Your task to perform on an android device: toggle pop-ups in chrome Image 0: 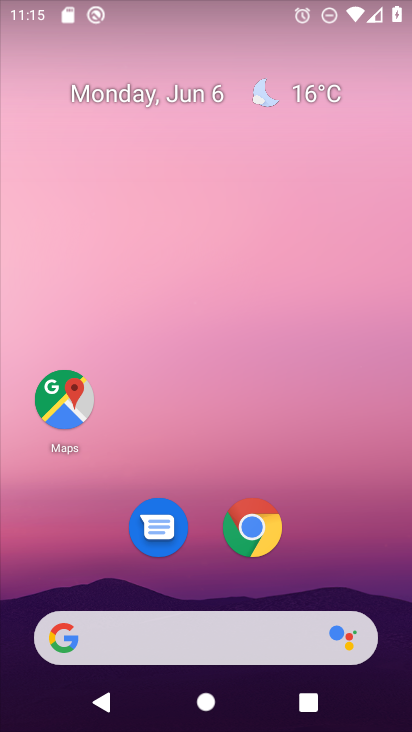
Step 0: drag from (369, 529) to (396, 142)
Your task to perform on an android device: toggle pop-ups in chrome Image 1: 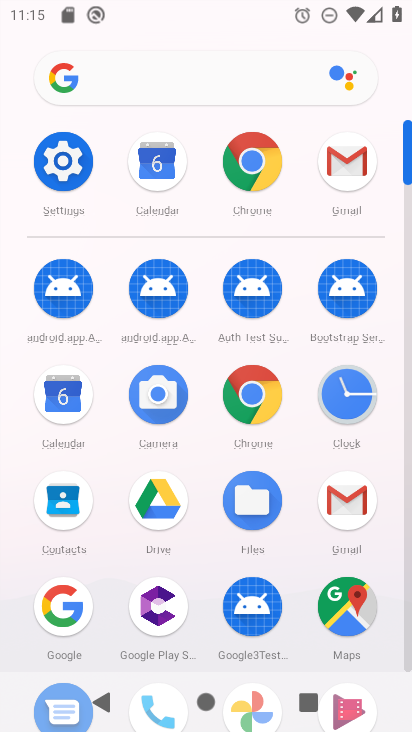
Step 1: click (260, 411)
Your task to perform on an android device: toggle pop-ups in chrome Image 2: 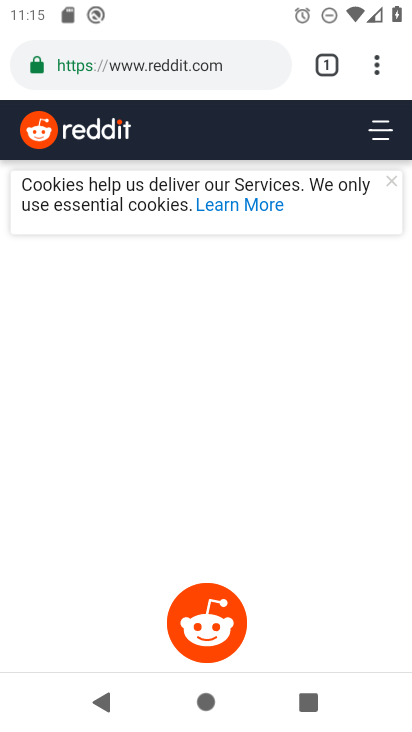
Step 2: click (375, 68)
Your task to perform on an android device: toggle pop-ups in chrome Image 3: 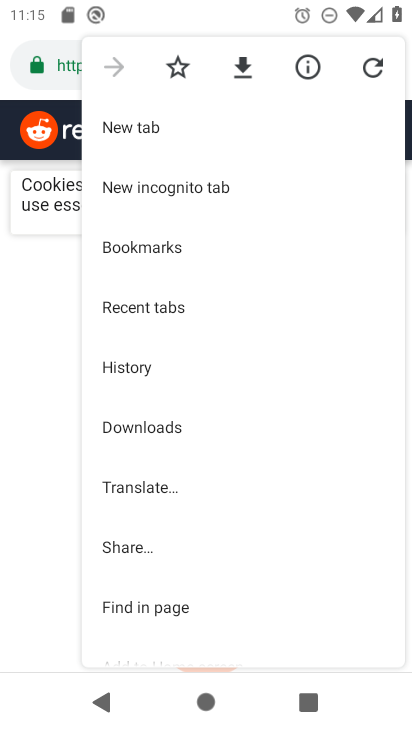
Step 3: drag from (308, 448) to (321, 313)
Your task to perform on an android device: toggle pop-ups in chrome Image 4: 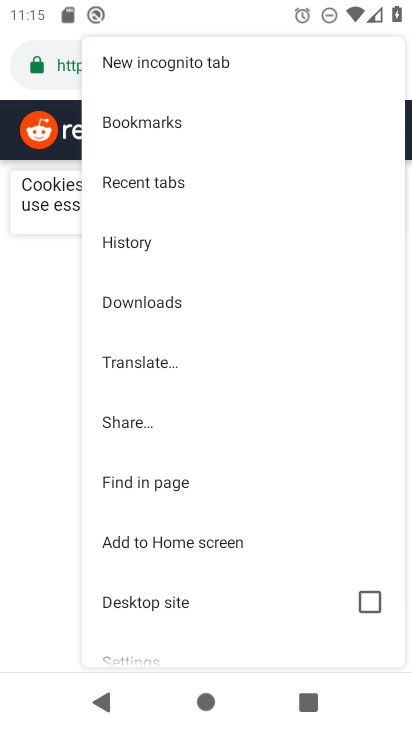
Step 4: drag from (297, 483) to (317, 344)
Your task to perform on an android device: toggle pop-ups in chrome Image 5: 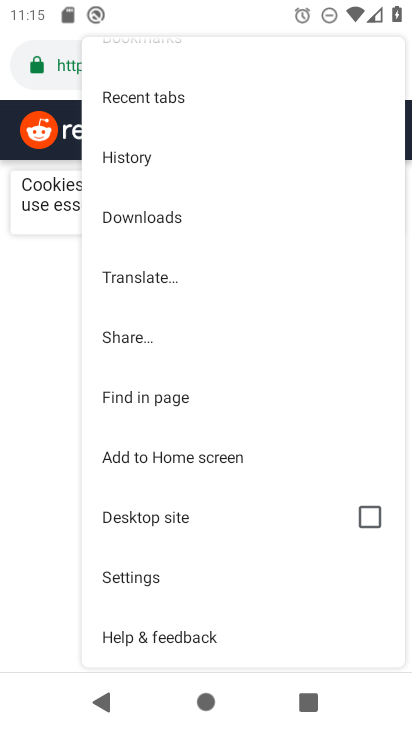
Step 5: drag from (287, 510) to (298, 385)
Your task to perform on an android device: toggle pop-ups in chrome Image 6: 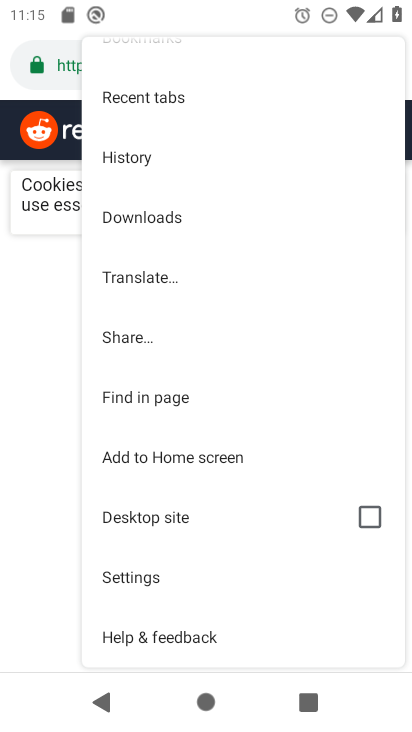
Step 6: drag from (289, 565) to (306, 396)
Your task to perform on an android device: toggle pop-ups in chrome Image 7: 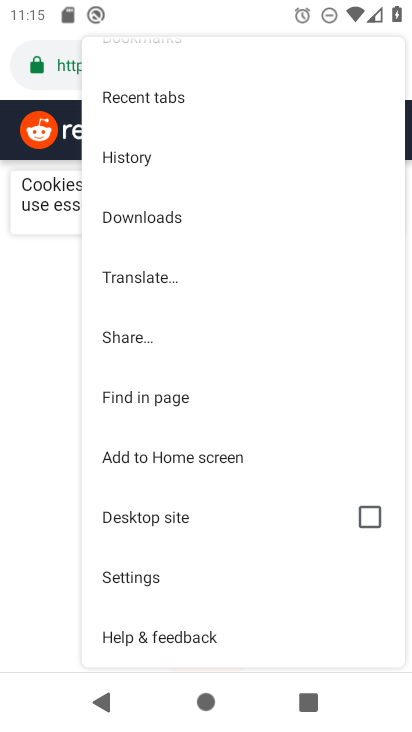
Step 7: click (178, 587)
Your task to perform on an android device: toggle pop-ups in chrome Image 8: 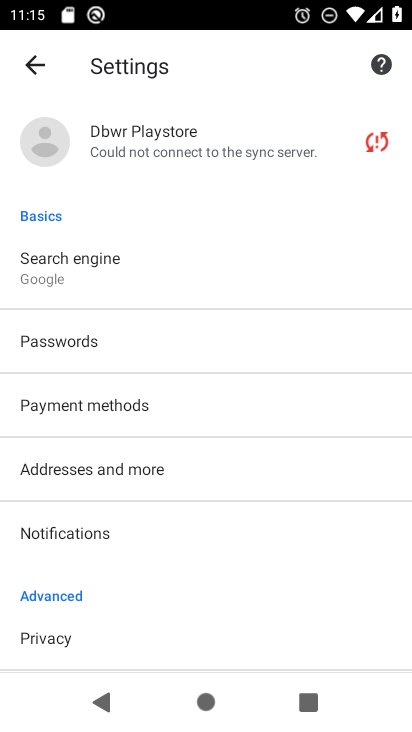
Step 8: drag from (271, 528) to (293, 273)
Your task to perform on an android device: toggle pop-ups in chrome Image 9: 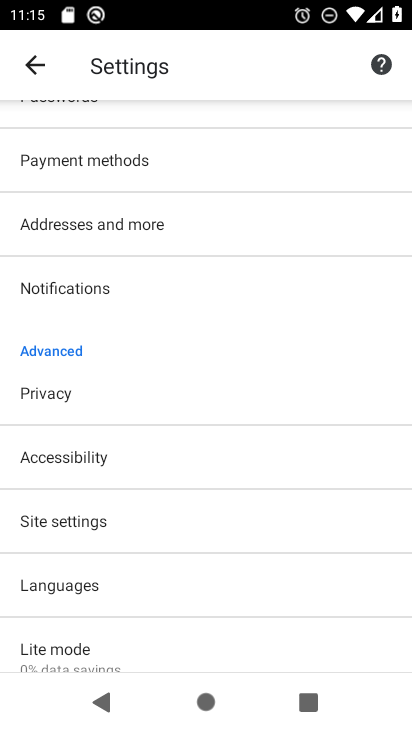
Step 9: drag from (302, 585) to (341, 319)
Your task to perform on an android device: toggle pop-ups in chrome Image 10: 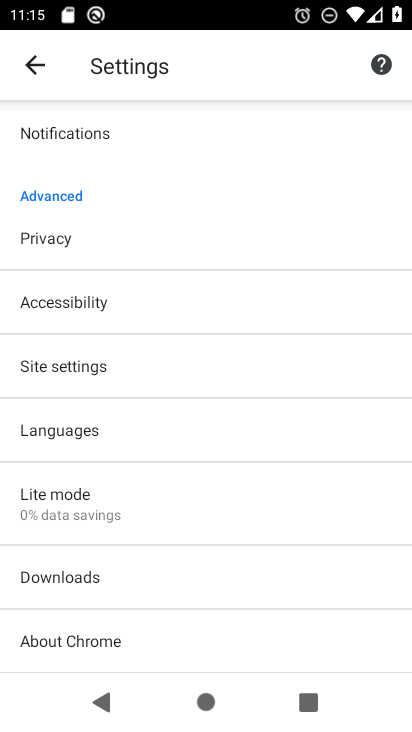
Step 10: drag from (251, 583) to (262, 405)
Your task to perform on an android device: toggle pop-ups in chrome Image 11: 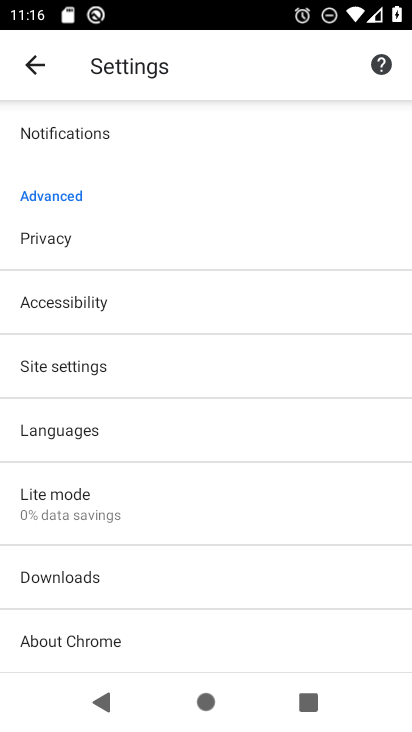
Step 11: click (221, 371)
Your task to perform on an android device: toggle pop-ups in chrome Image 12: 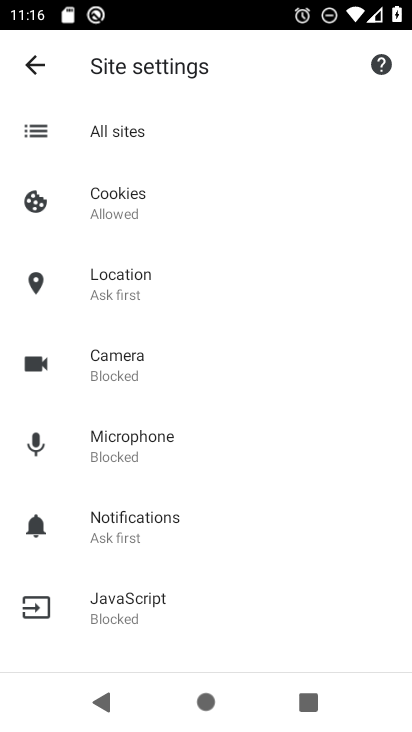
Step 12: drag from (291, 543) to (320, 287)
Your task to perform on an android device: toggle pop-ups in chrome Image 13: 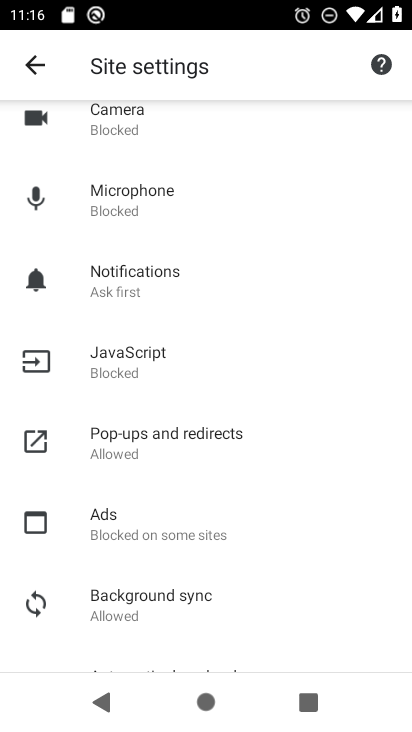
Step 13: drag from (294, 587) to (311, 305)
Your task to perform on an android device: toggle pop-ups in chrome Image 14: 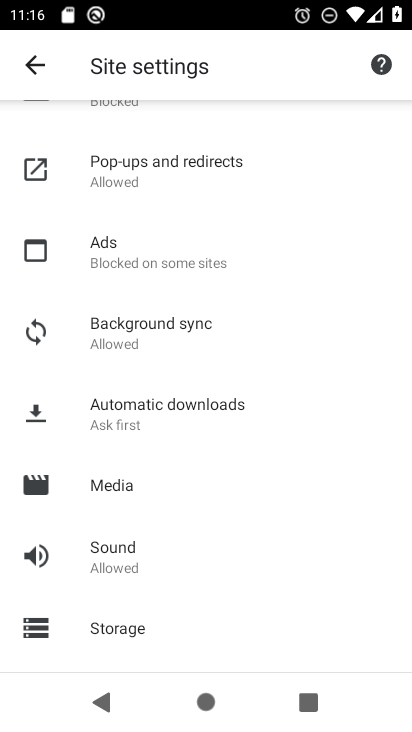
Step 14: drag from (297, 559) to (315, 259)
Your task to perform on an android device: toggle pop-ups in chrome Image 15: 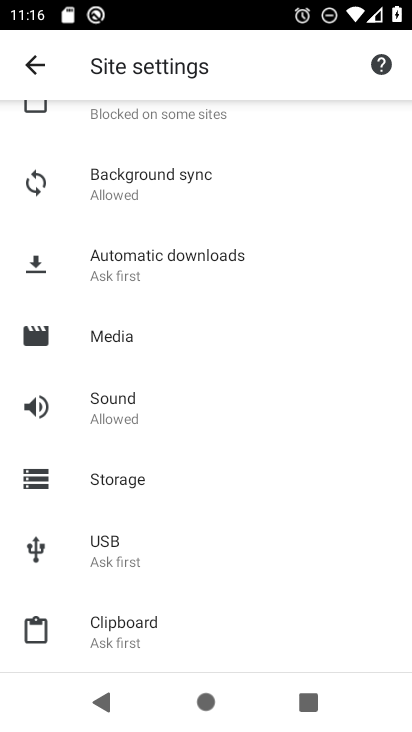
Step 15: drag from (298, 274) to (333, 470)
Your task to perform on an android device: toggle pop-ups in chrome Image 16: 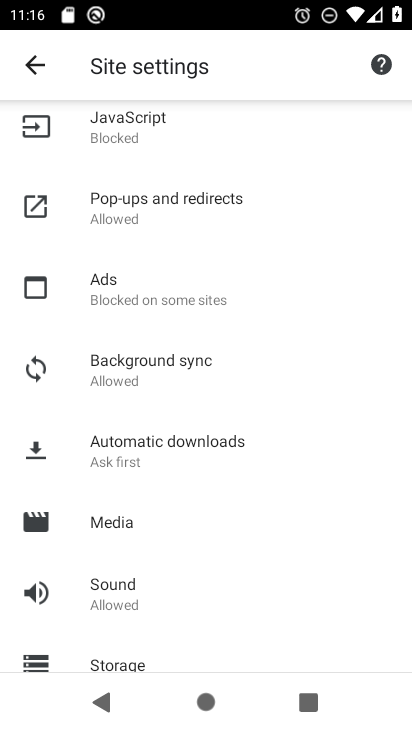
Step 16: drag from (304, 233) to (325, 526)
Your task to perform on an android device: toggle pop-ups in chrome Image 17: 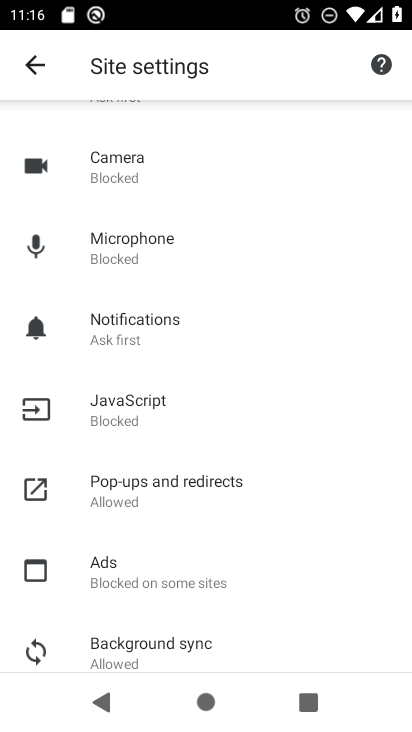
Step 17: click (184, 500)
Your task to perform on an android device: toggle pop-ups in chrome Image 18: 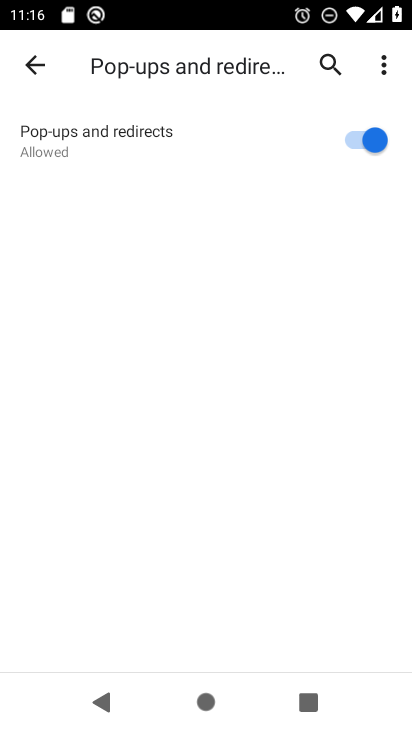
Step 18: click (345, 126)
Your task to perform on an android device: toggle pop-ups in chrome Image 19: 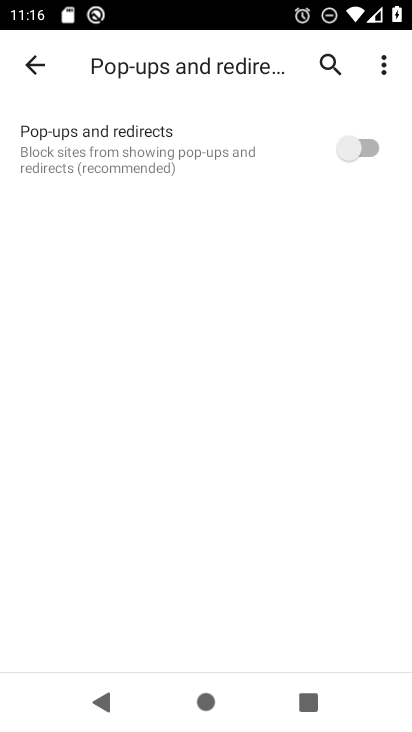
Step 19: task complete